Your task to perform on an android device: change alarm snooze length Image 0: 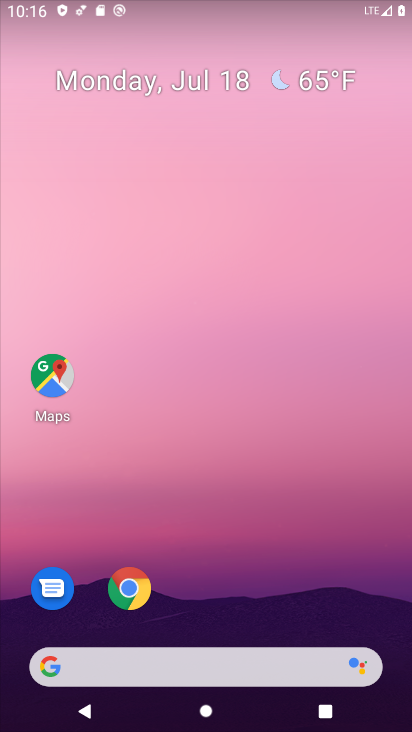
Step 0: press home button
Your task to perform on an android device: change alarm snooze length Image 1: 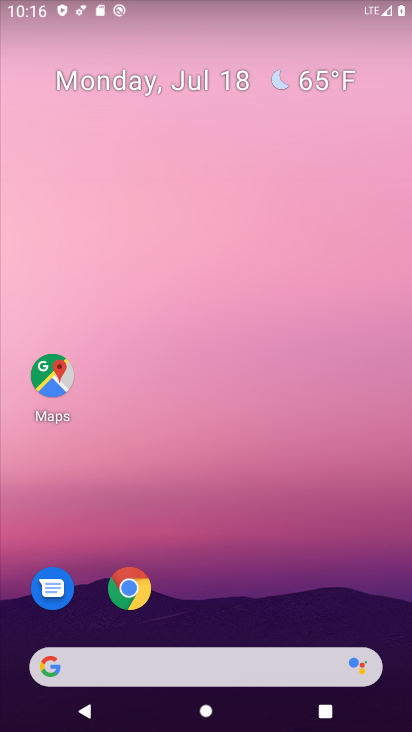
Step 1: drag from (255, 580) to (340, 236)
Your task to perform on an android device: change alarm snooze length Image 2: 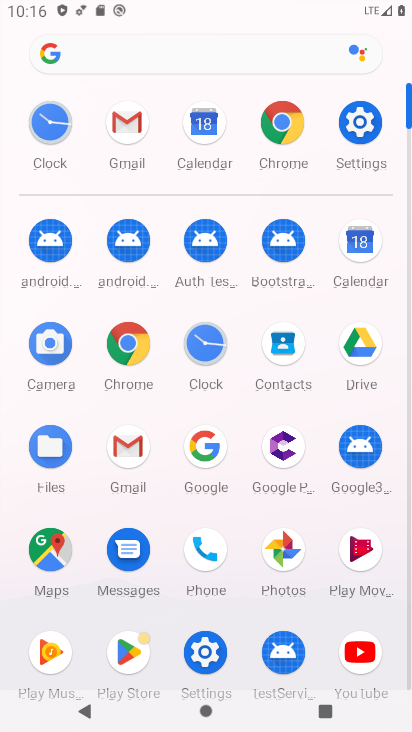
Step 2: click (207, 347)
Your task to perform on an android device: change alarm snooze length Image 3: 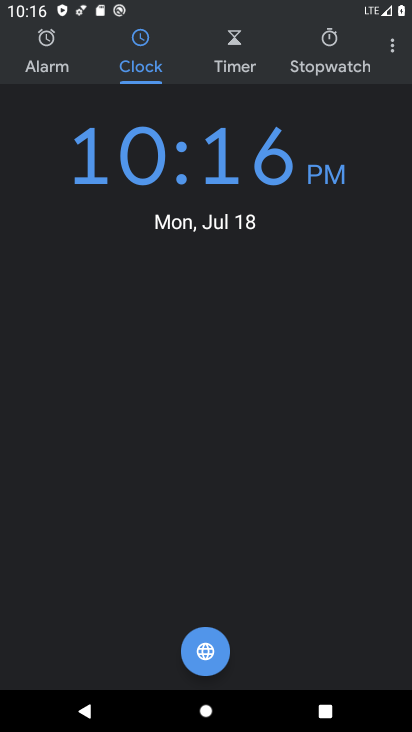
Step 3: click (391, 53)
Your task to perform on an android device: change alarm snooze length Image 4: 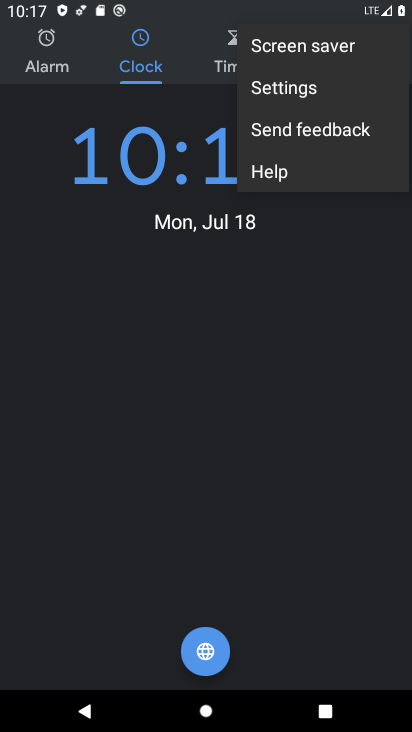
Step 4: click (293, 92)
Your task to perform on an android device: change alarm snooze length Image 5: 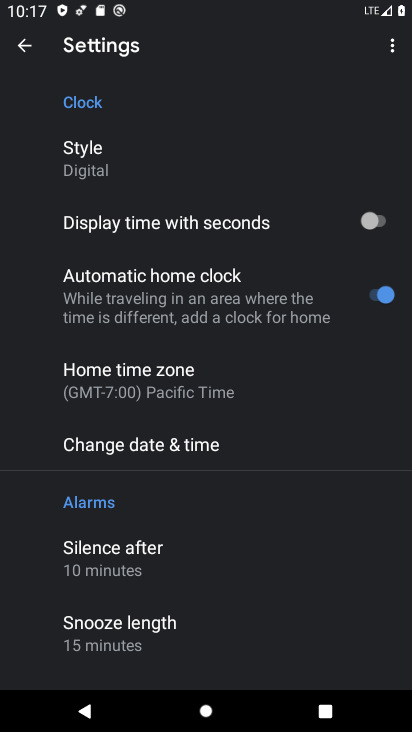
Step 5: click (129, 643)
Your task to perform on an android device: change alarm snooze length Image 6: 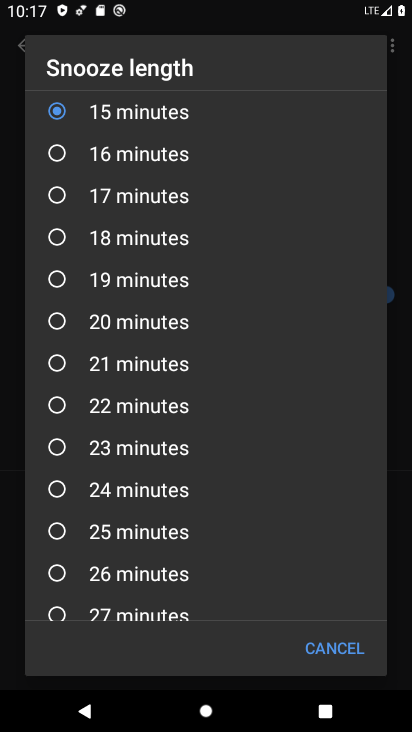
Step 6: click (57, 319)
Your task to perform on an android device: change alarm snooze length Image 7: 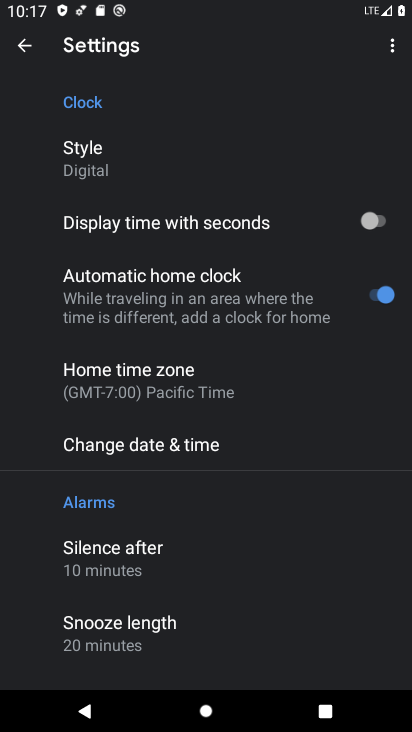
Step 7: task complete